Your task to perform on an android device: Toggle the flashlight Image 0: 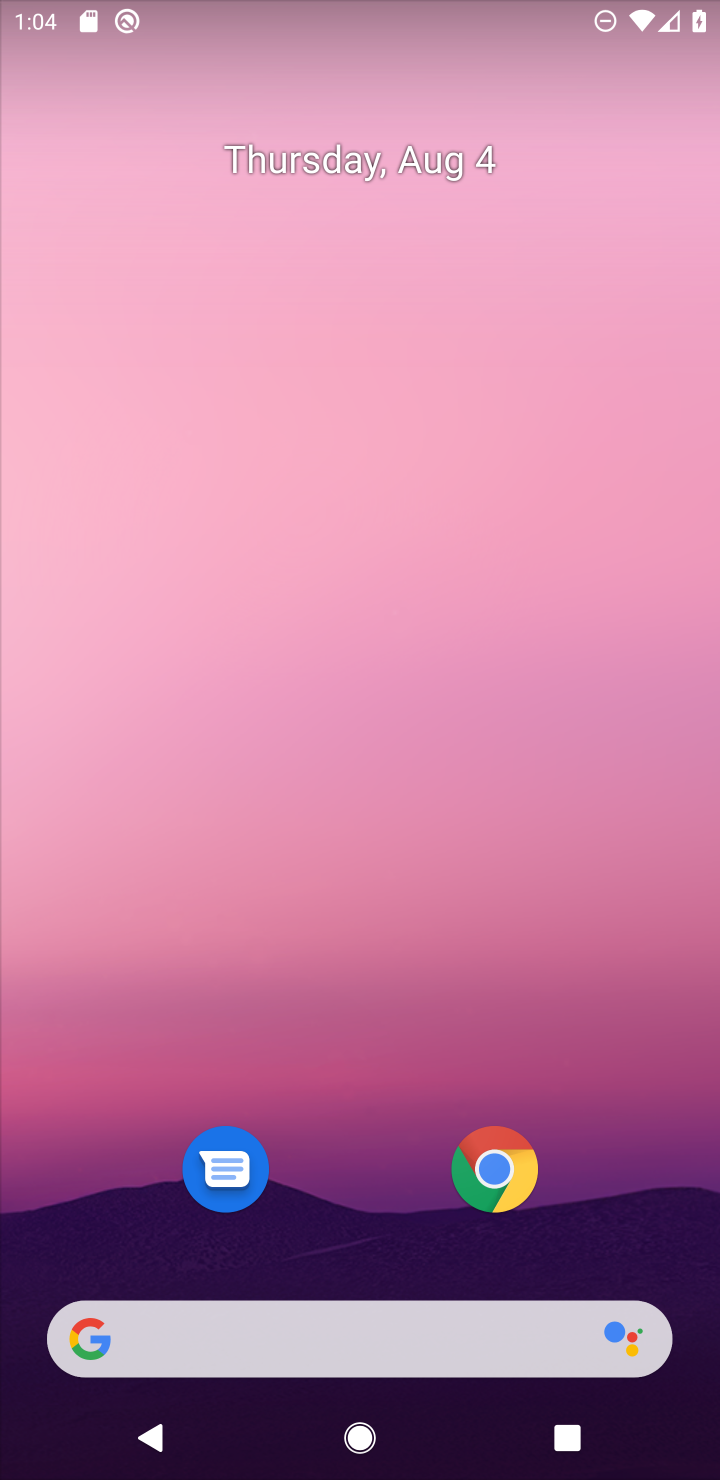
Step 0: drag from (374, 80) to (560, 1038)
Your task to perform on an android device: Toggle the flashlight Image 1: 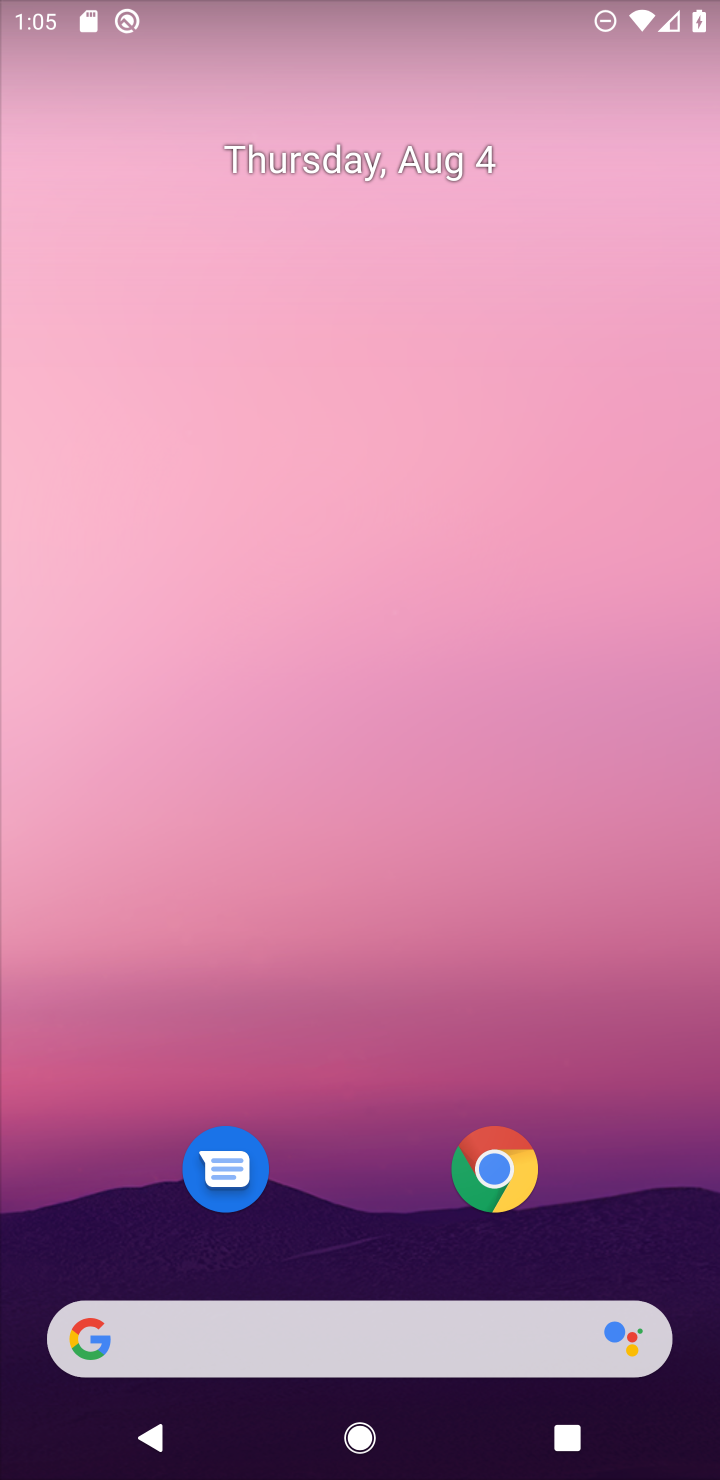
Step 1: task complete